Your task to perform on an android device: check data usage Image 0: 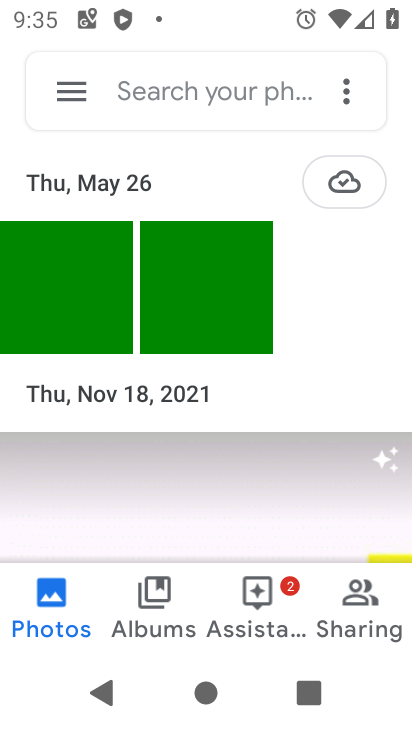
Step 0: press home button
Your task to perform on an android device: check data usage Image 1: 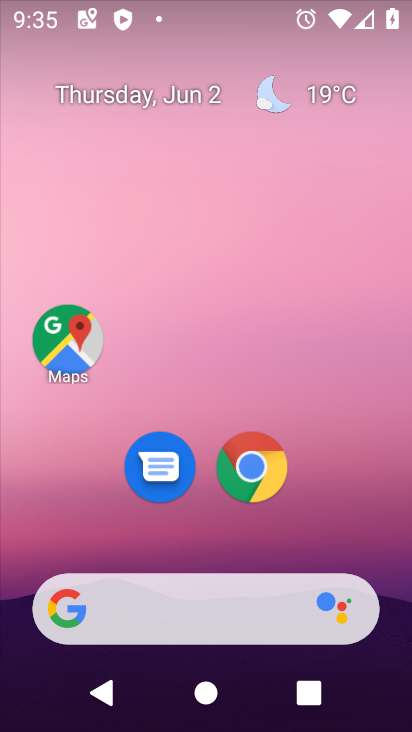
Step 1: drag from (217, 551) to (207, 191)
Your task to perform on an android device: check data usage Image 2: 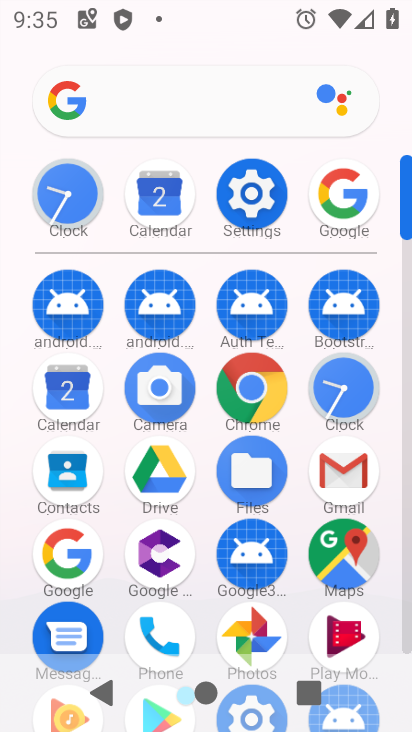
Step 2: drag from (192, 556) to (213, 341)
Your task to perform on an android device: check data usage Image 3: 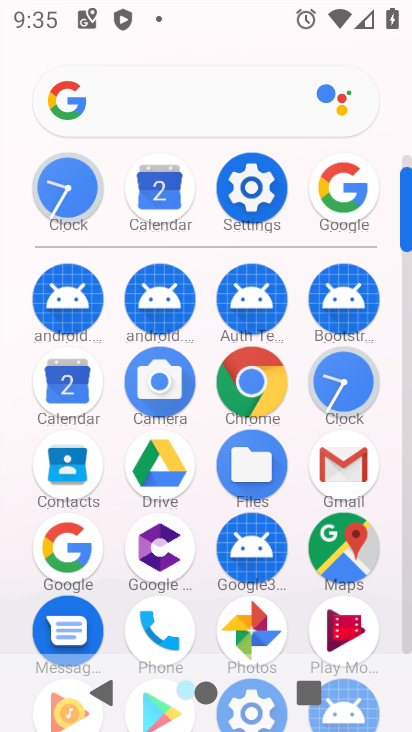
Step 3: click (252, 191)
Your task to perform on an android device: check data usage Image 4: 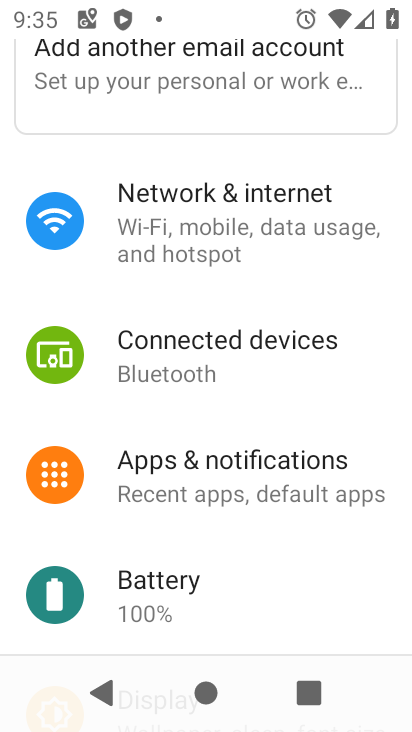
Step 4: click (224, 227)
Your task to perform on an android device: check data usage Image 5: 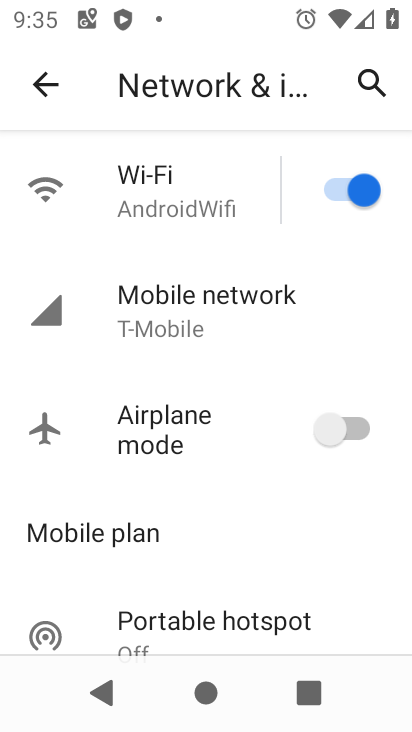
Step 5: click (181, 326)
Your task to perform on an android device: check data usage Image 6: 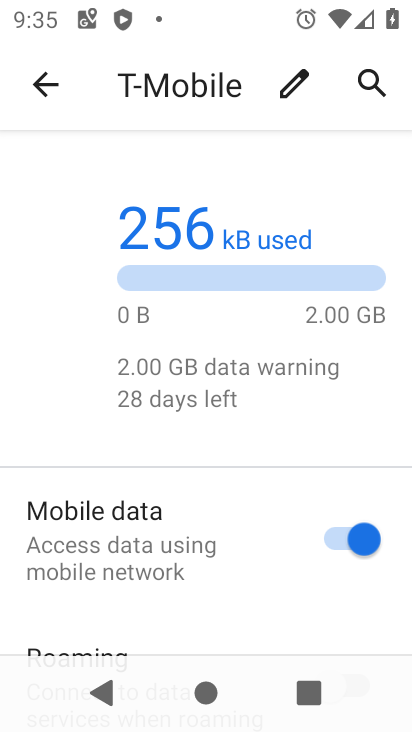
Step 6: task complete